Your task to perform on an android device: Open calendar and show me the first week of next month Image 0: 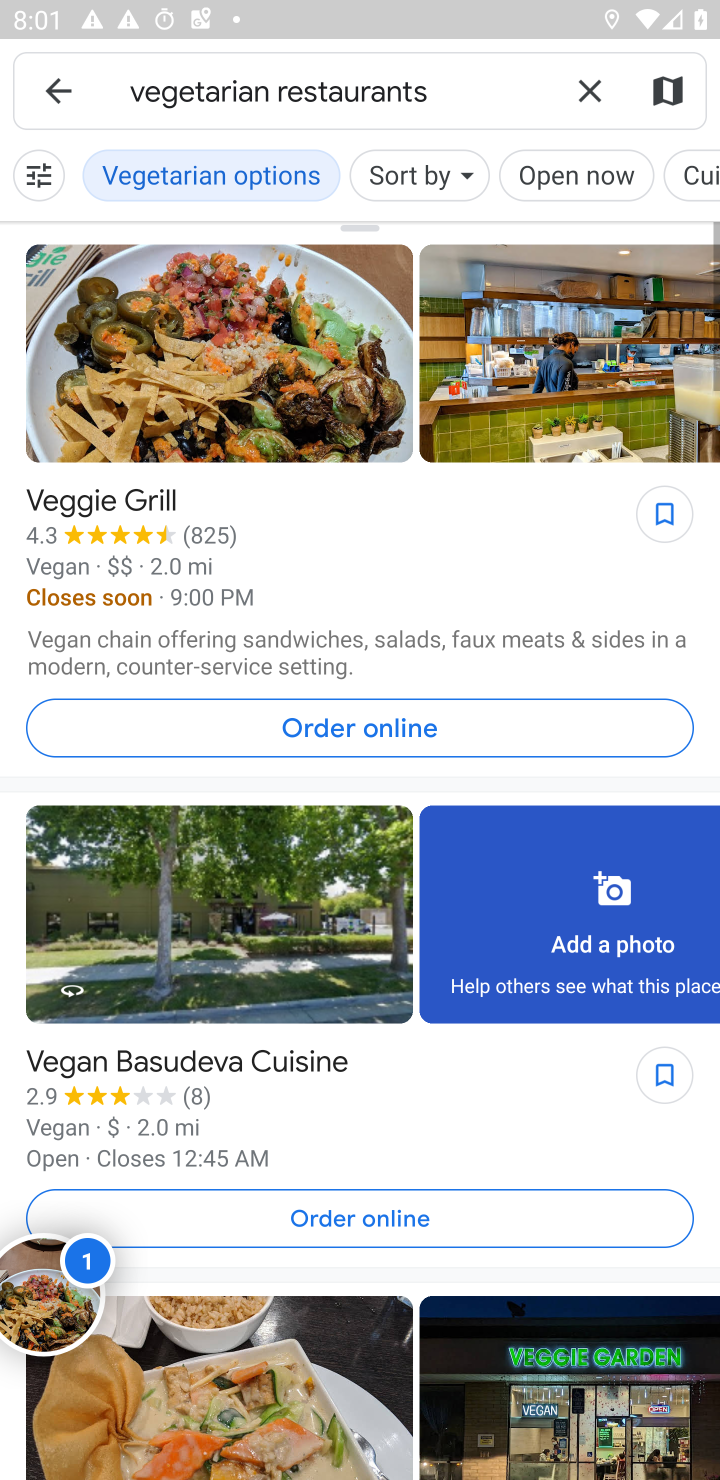
Step 0: press home button
Your task to perform on an android device: Open calendar and show me the first week of next month Image 1: 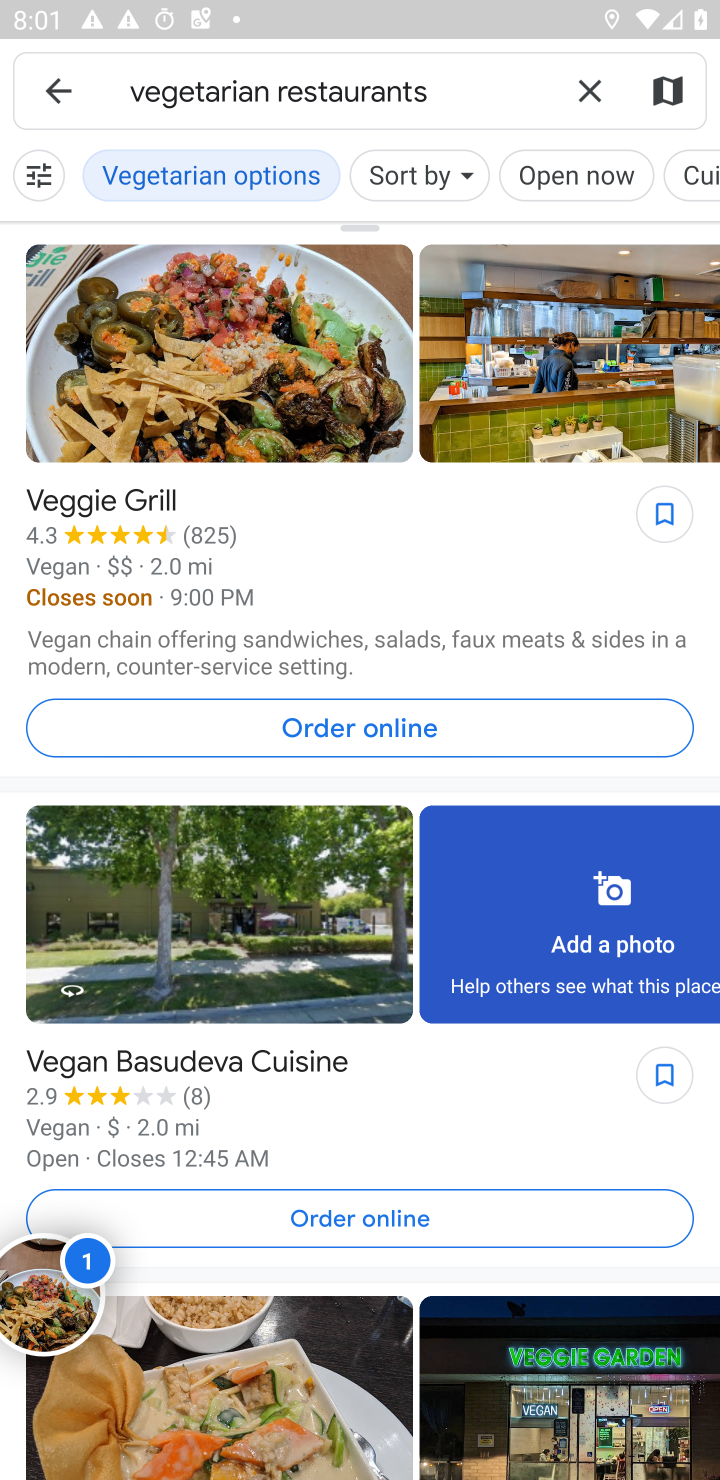
Step 1: click (365, 251)
Your task to perform on an android device: Open calendar and show me the first week of next month Image 2: 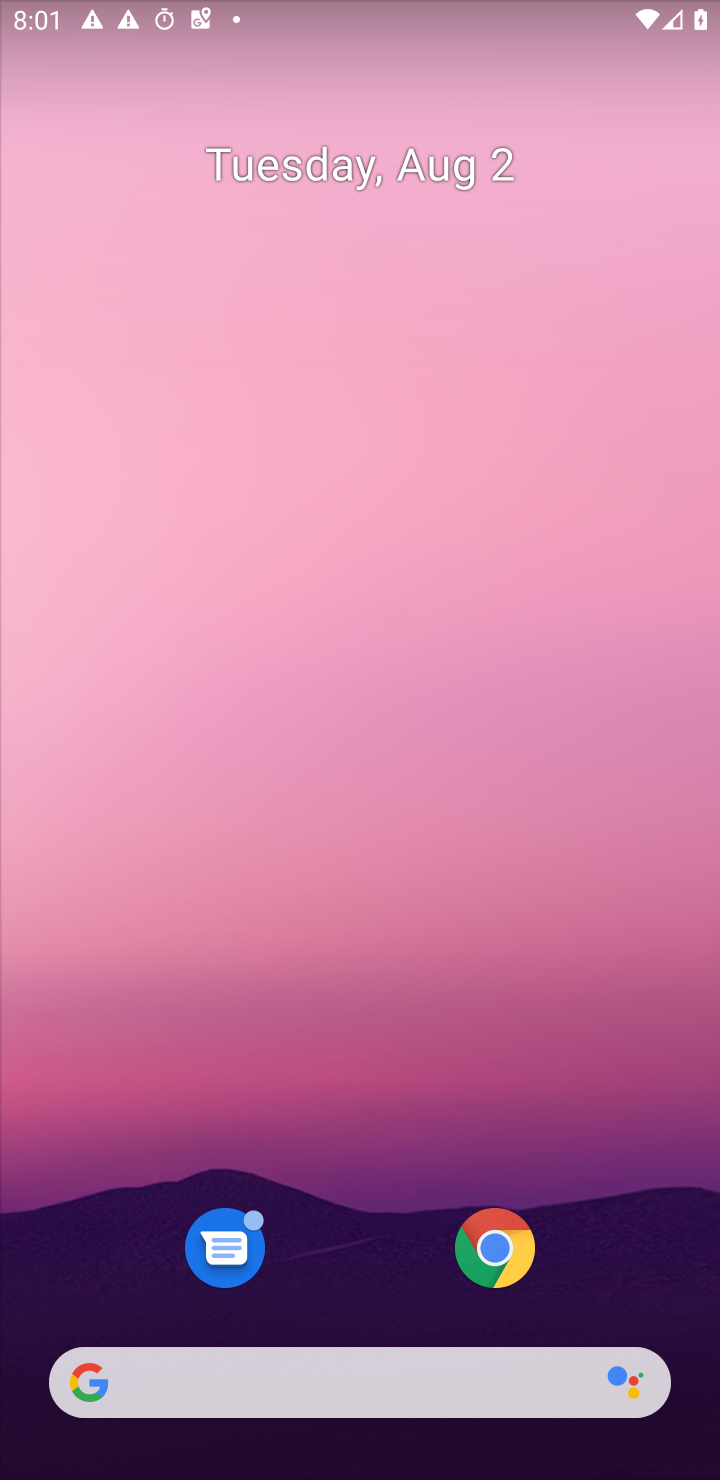
Step 2: drag from (353, 1284) to (477, 378)
Your task to perform on an android device: Open calendar and show me the first week of next month Image 3: 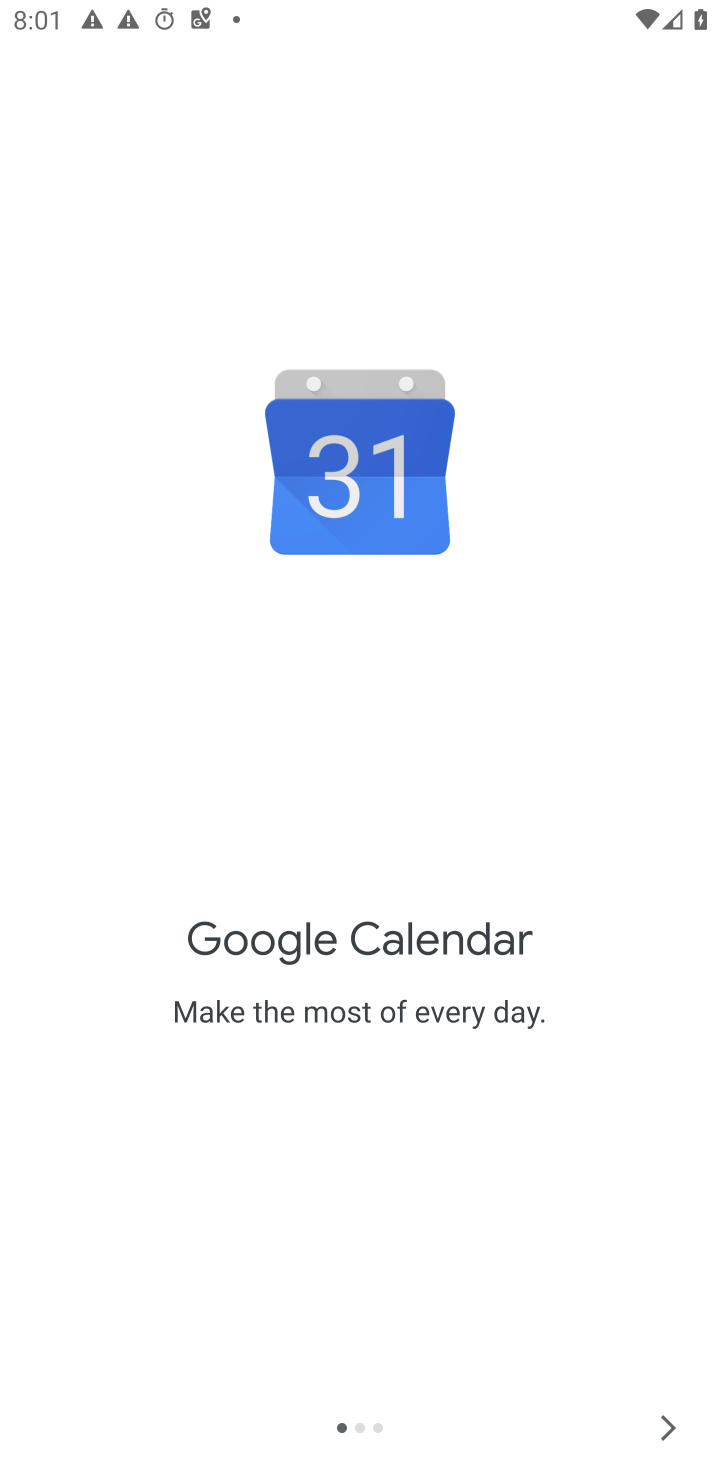
Step 3: press home button
Your task to perform on an android device: Open calendar and show me the first week of next month Image 4: 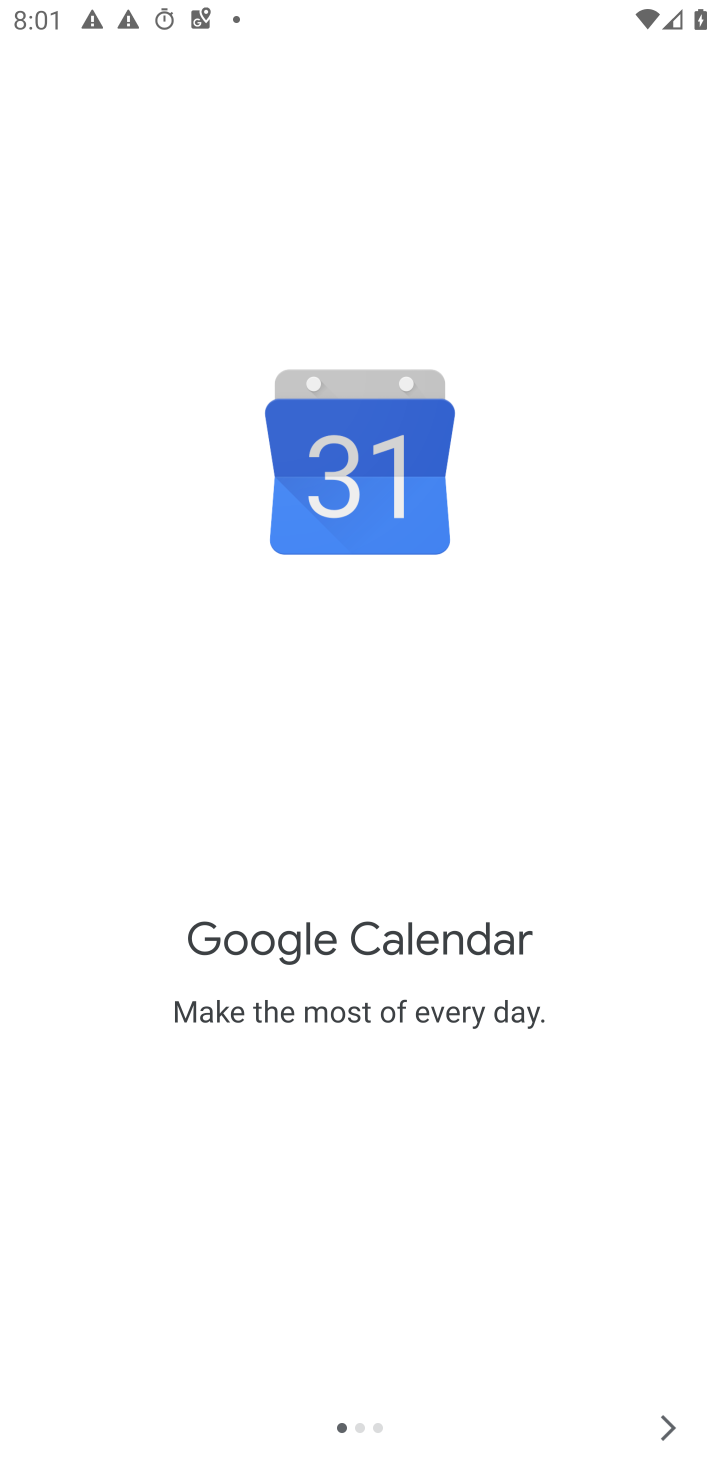
Step 4: drag from (426, 1379) to (523, 349)
Your task to perform on an android device: Open calendar and show me the first week of next month Image 5: 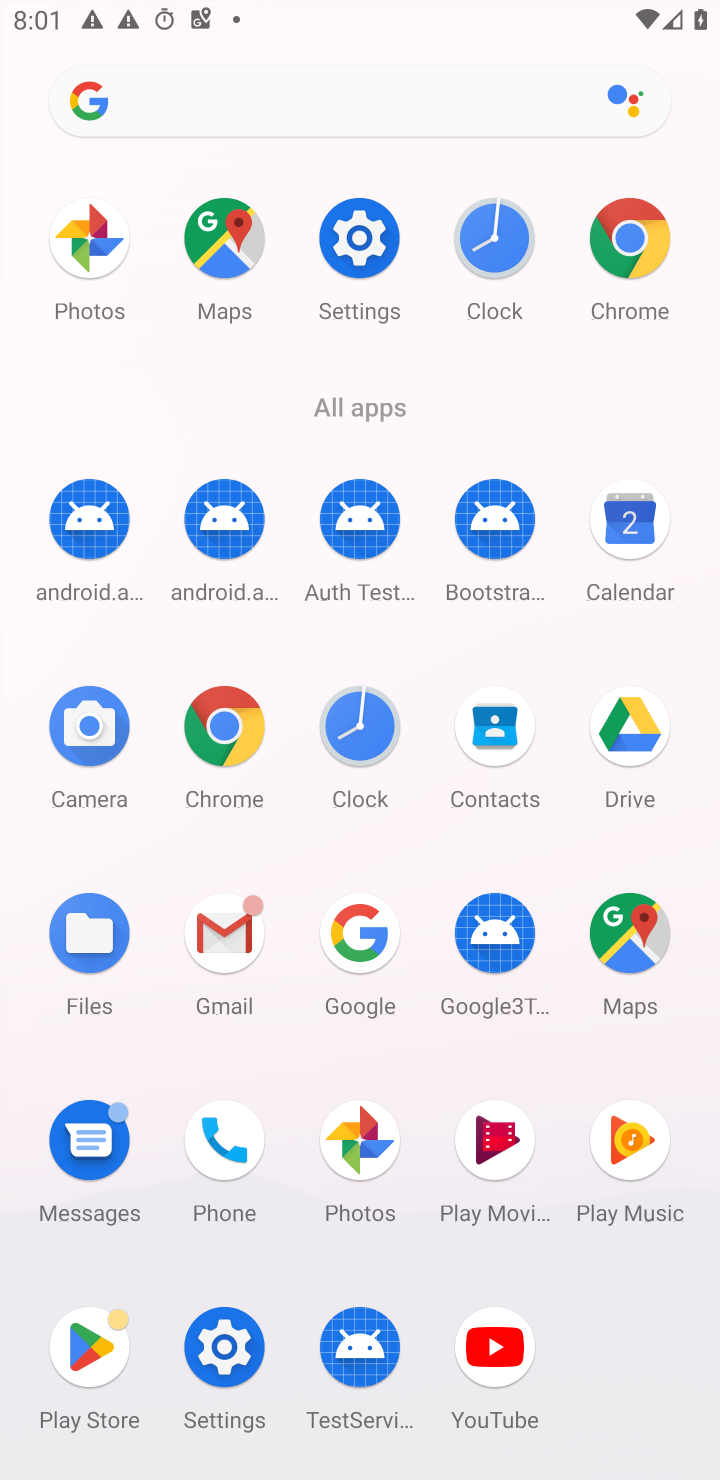
Step 5: click (633, 515)
Your task to perform on an android device: Open calendar and show me the first week of next month Image 6: 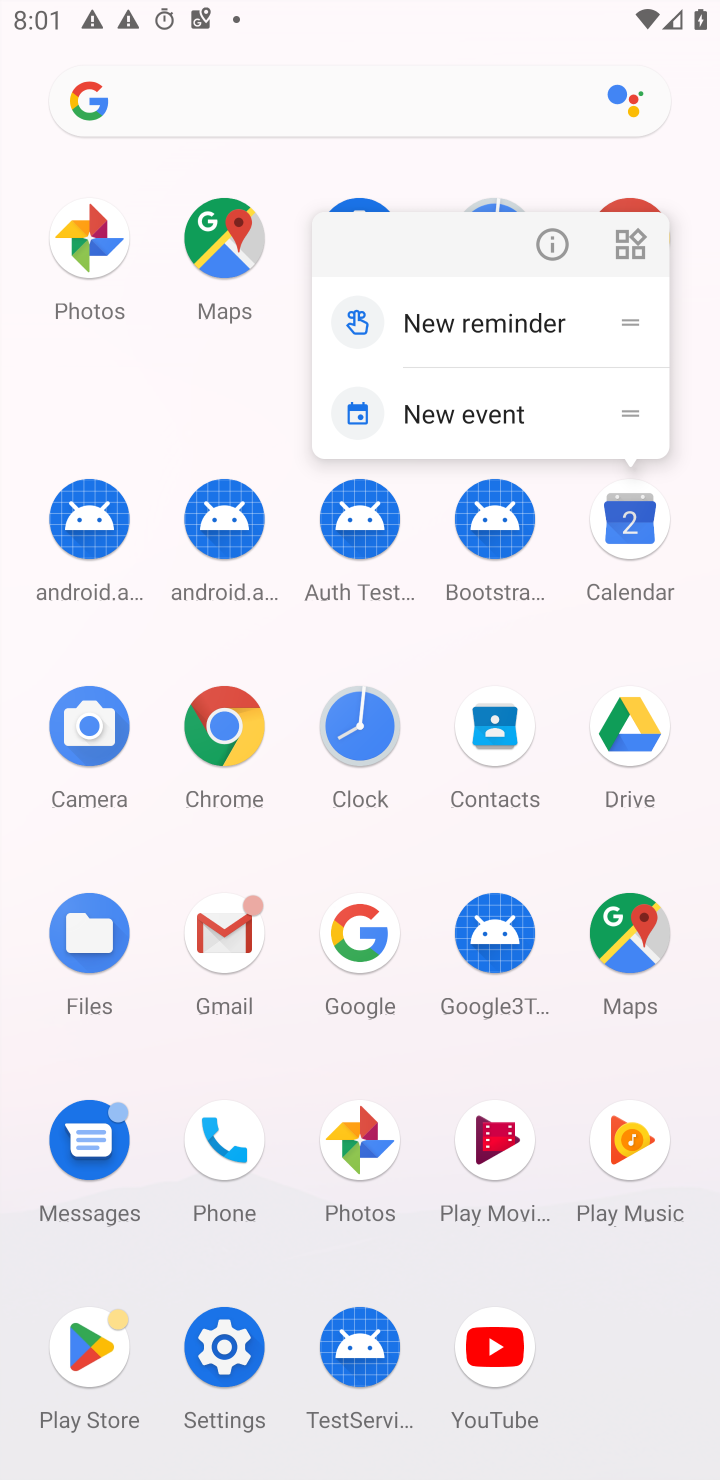
Step 6: click (553, 239)
Your task to perform on an android device: Open calendar and show me the first week of next month Image 7: 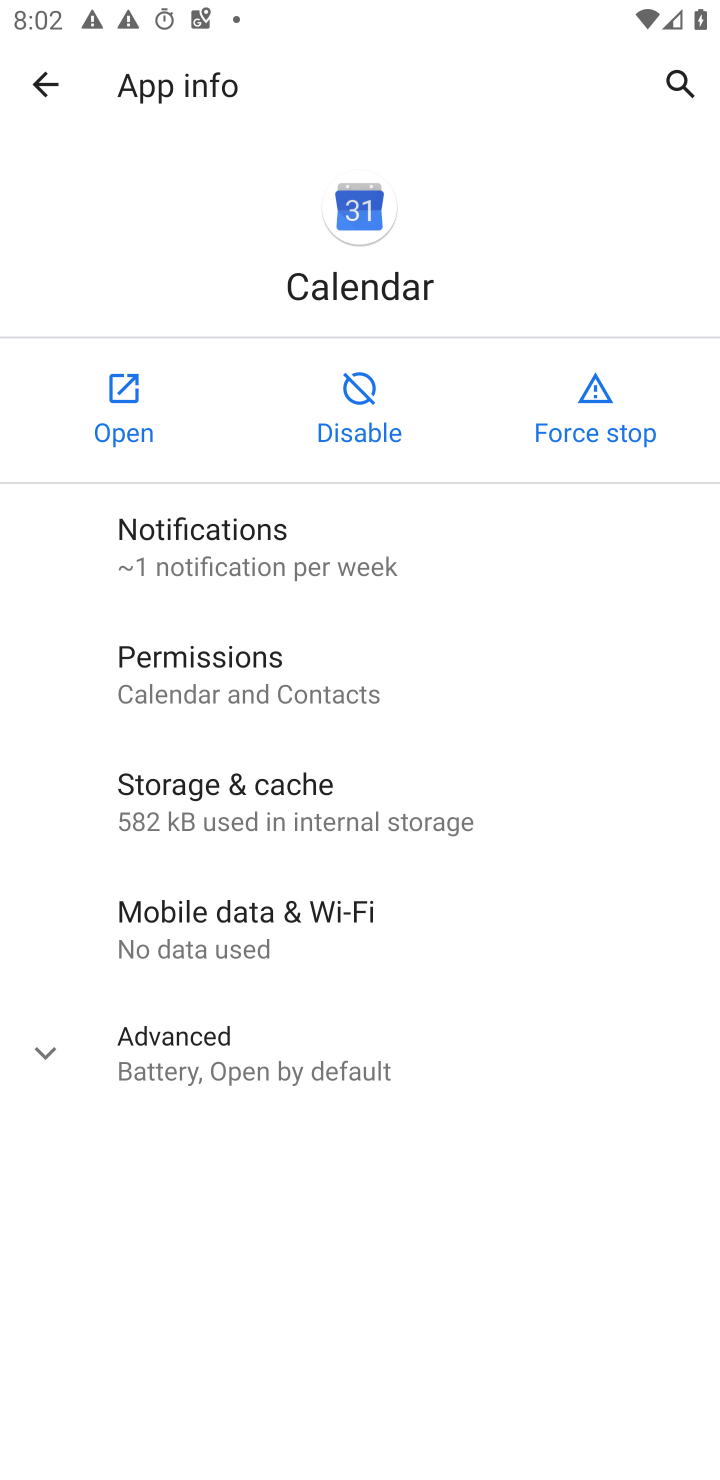
Step 7: click (117, 386)
Your task to perform on an android device: Open calendar and show me the first week of next month Image 8: 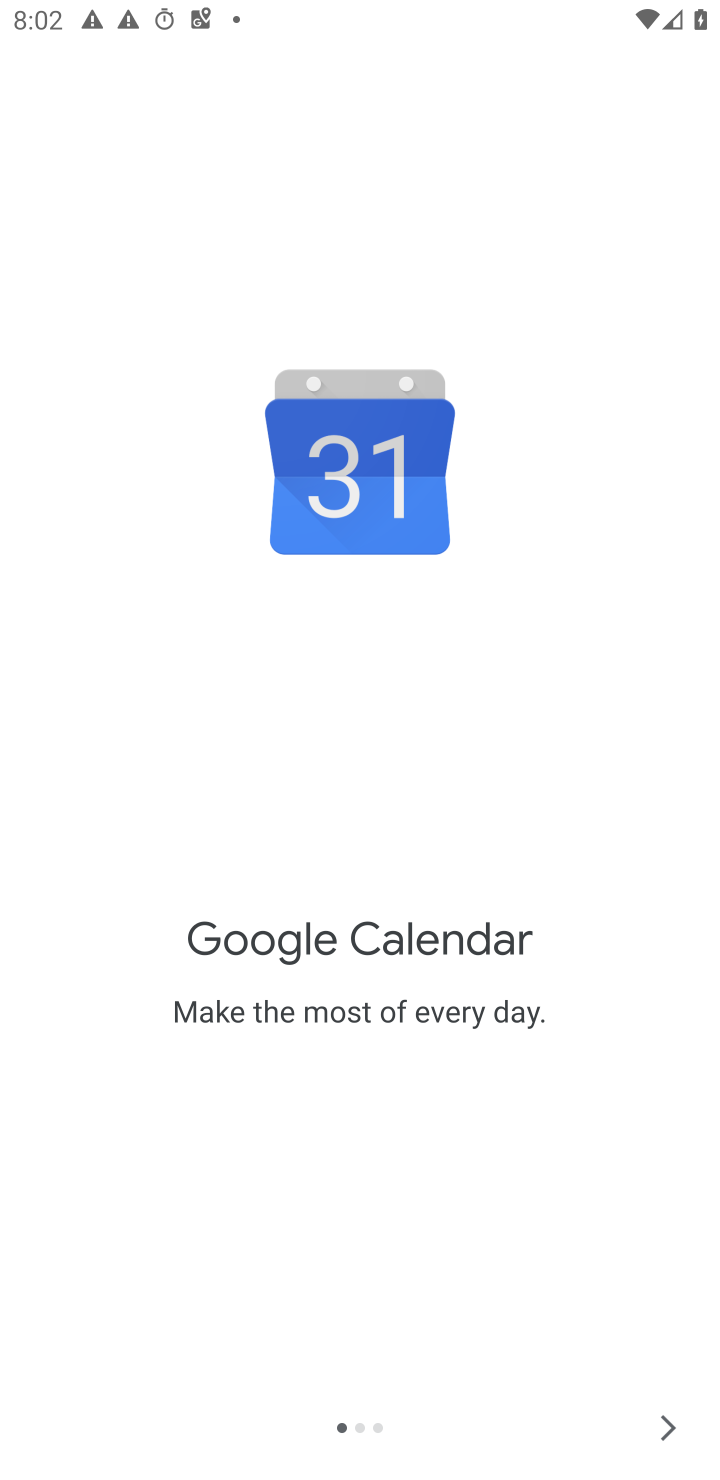
Step 8: drag from (503, 1015) to (508, 546)
Your task to perform on an android device: Open calendar and show me the first week of next month Image 9: 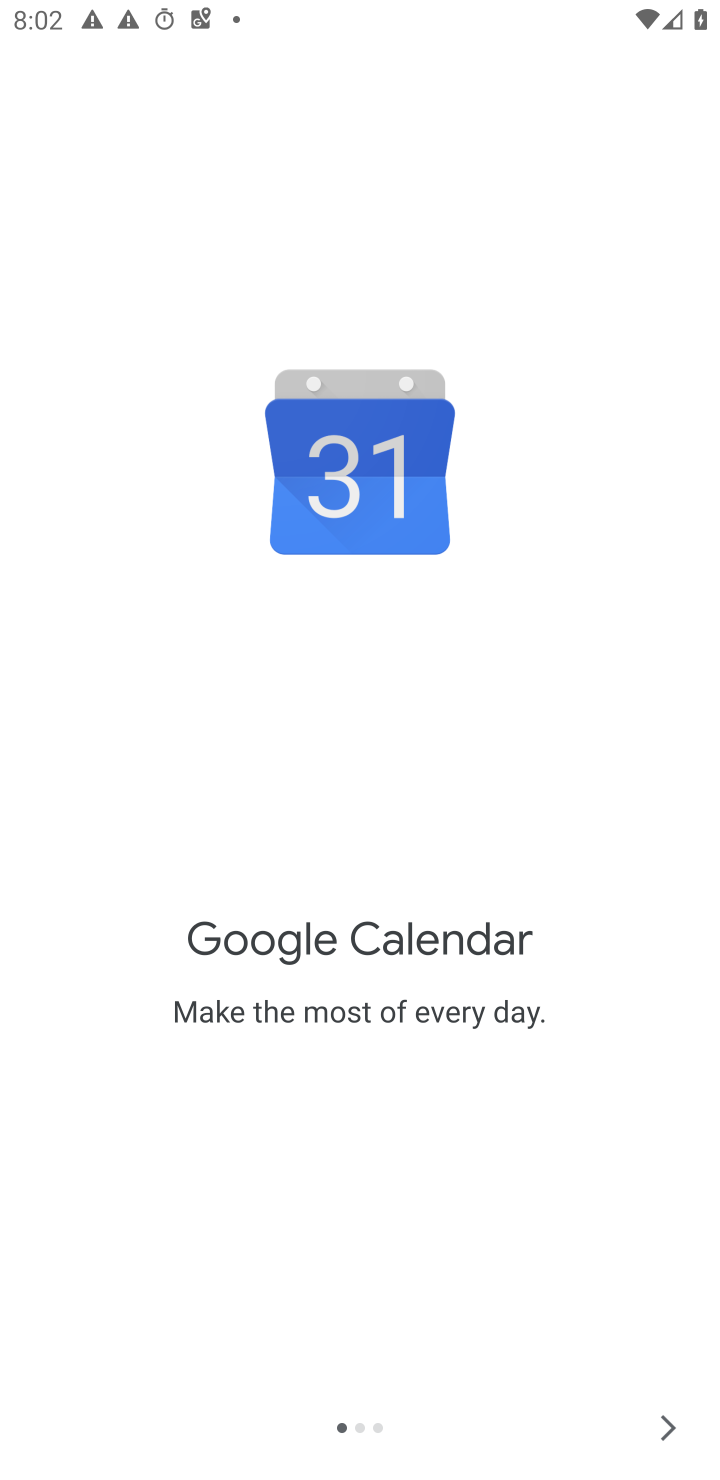
Step 9: click (639, 1418)
Your task to perform on an android device: Open calendar and show me the first week of next month Image 10: 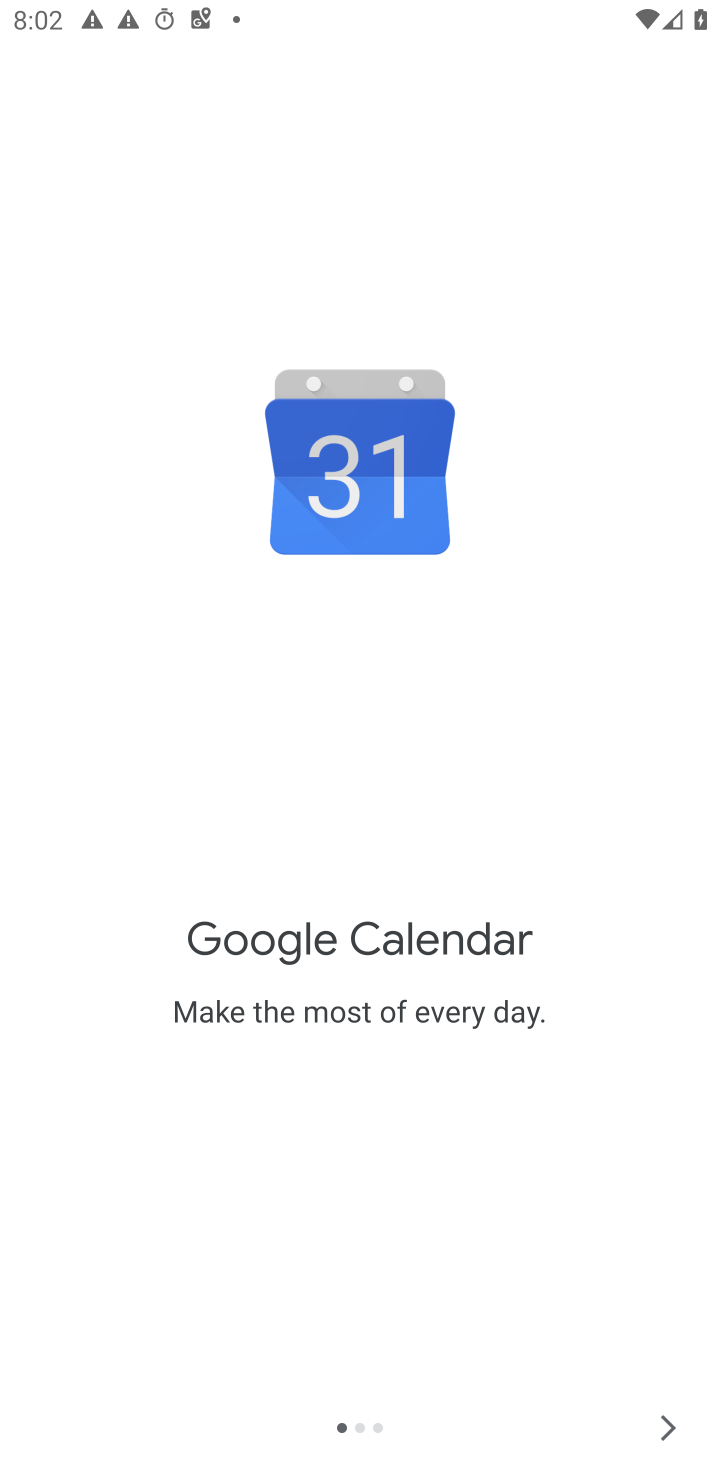
Step 10: click (650, 1418)
Your task to perform on an android device: Open calendar and show me the first week of next month Image 11: 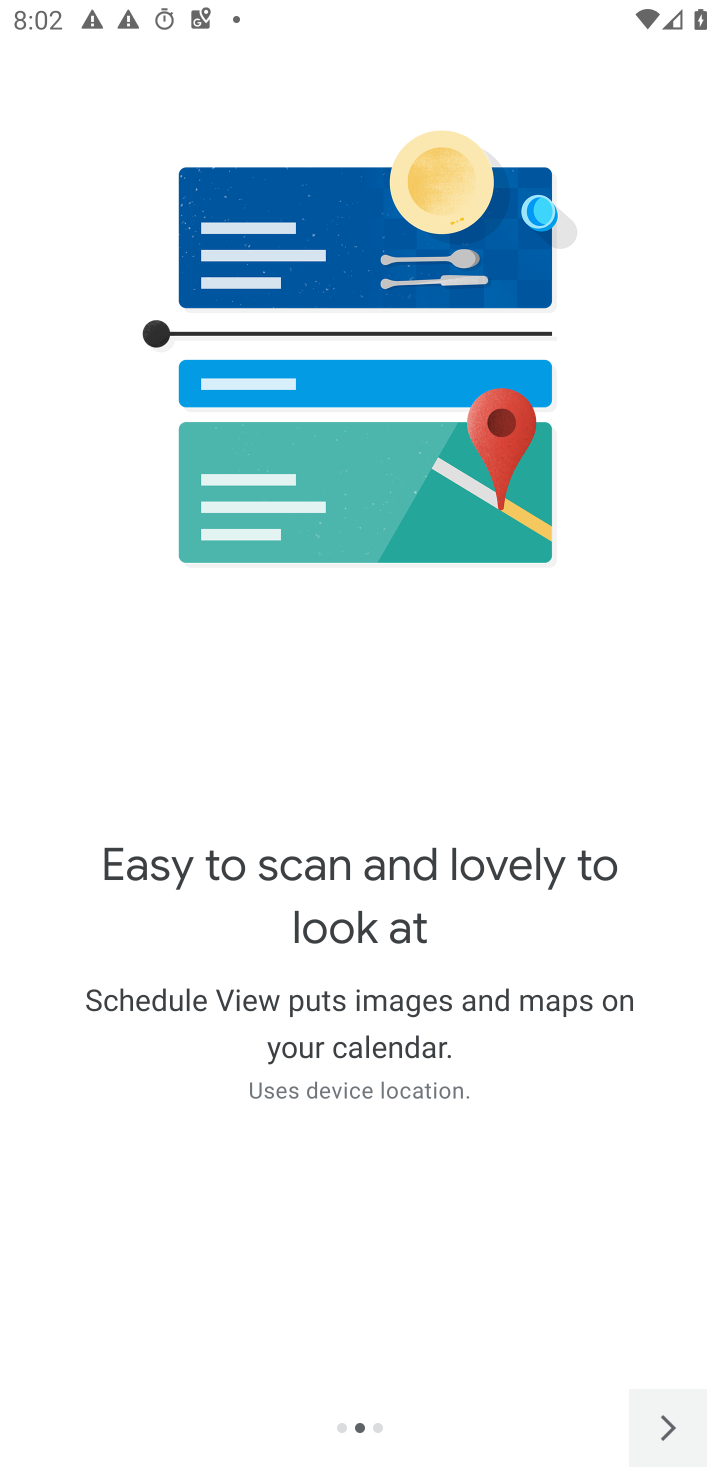
Step 11: click (652, 1420)
Your task to perform on an android device: Open calendar and show me the first week of next month Image 12: 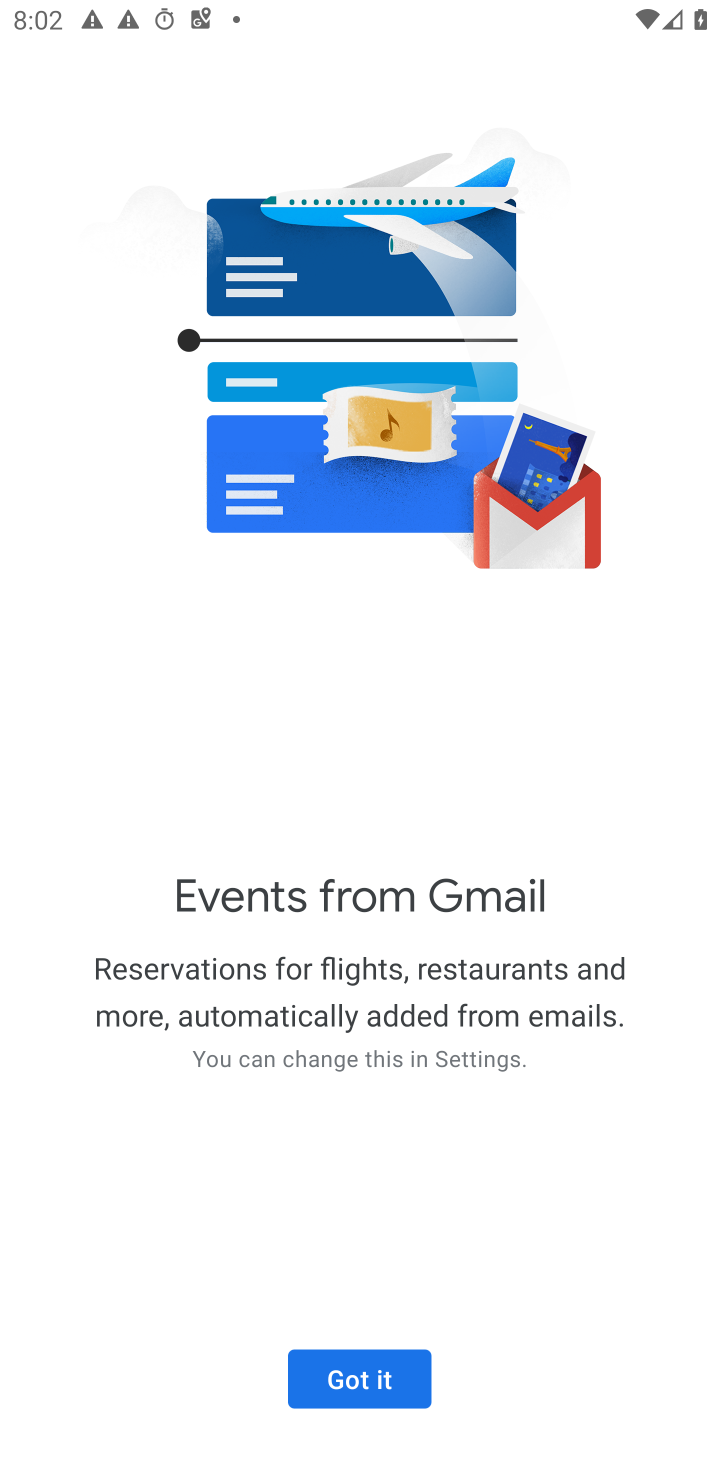
Step 12: click (337, 1389)
Your task to perform on an android device: Open calendar and show me the first week of next month Image 13: 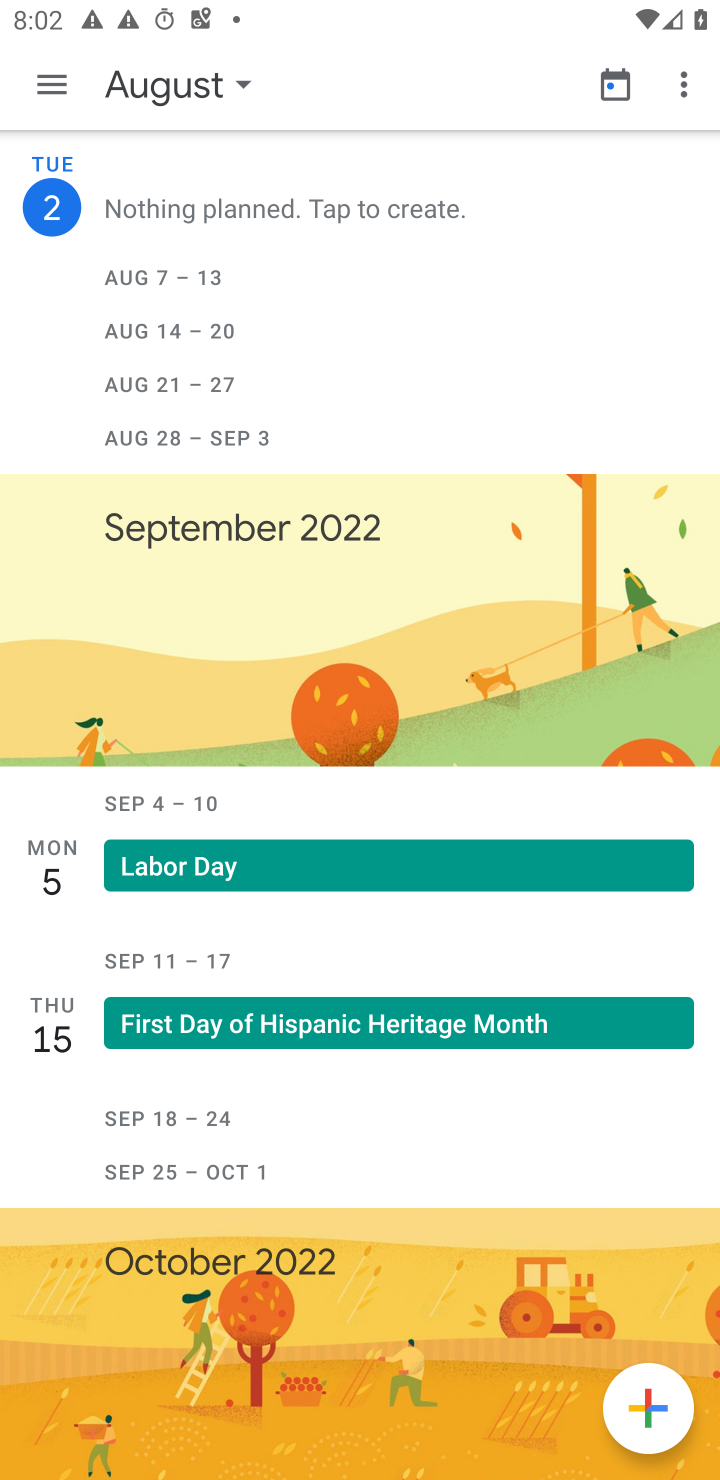
Step 13: drag from (390, 1020) to (494, 706)
Your task to perform on an android device: Open calendar and show me the first week of next month Image 14: 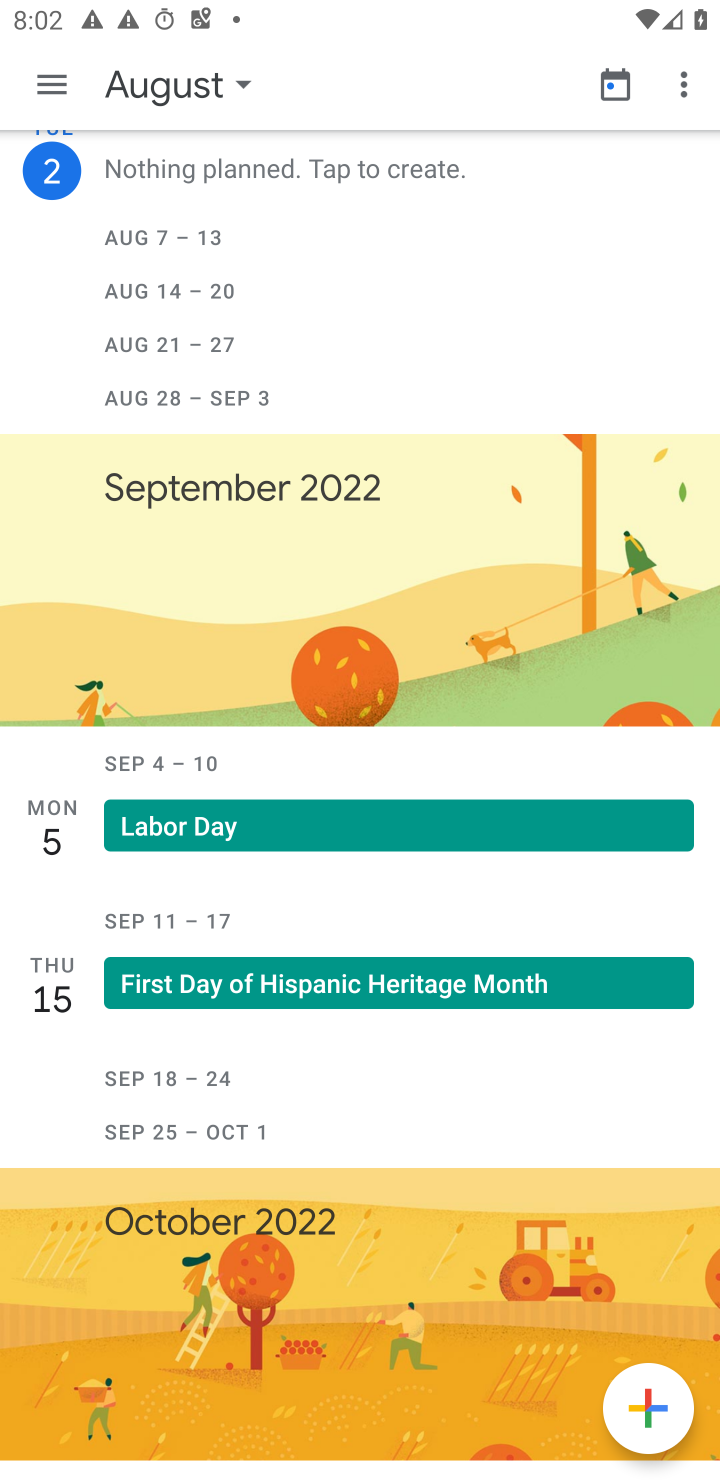
Step 14: click (186, 86)
Your task to perform on an android device: Open calendar and show me the first week of next month Image 15: 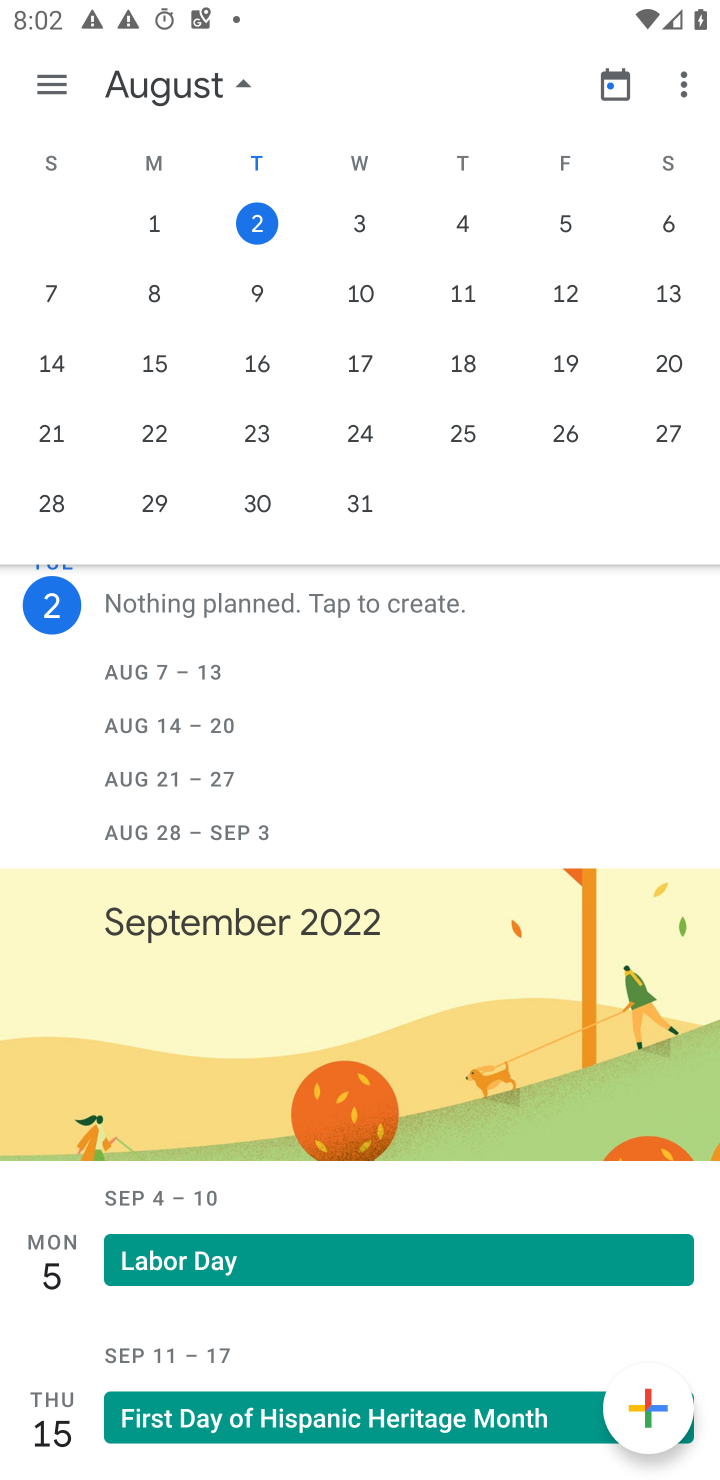
Step 15: drag from (492, 273) to (9, 286)
Your task to perform on an android device: Open calendar and show me the first week of next month Image 16: 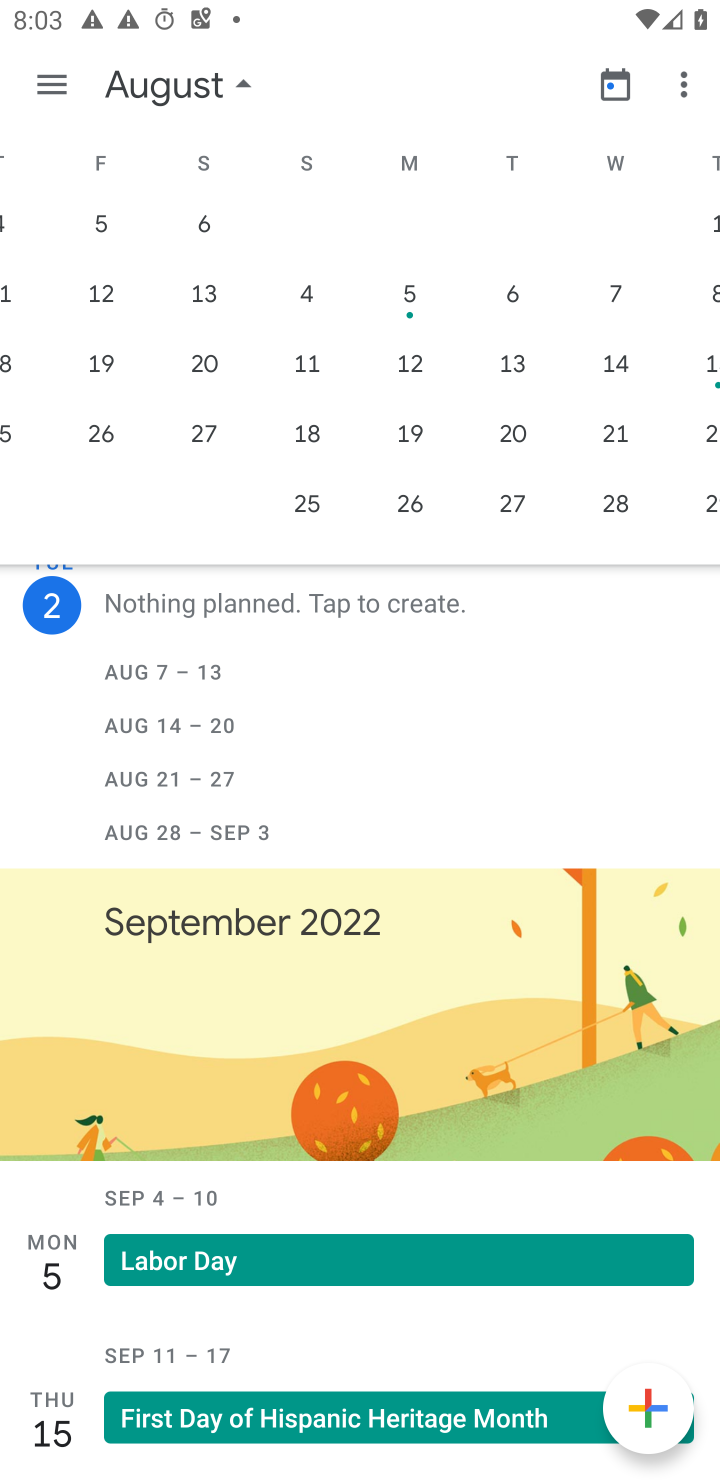
Step 16: drag from (182, 319) to (0, 357)
Your task to perform on an android device: Open calendar and show me the first week of next month Image 17: 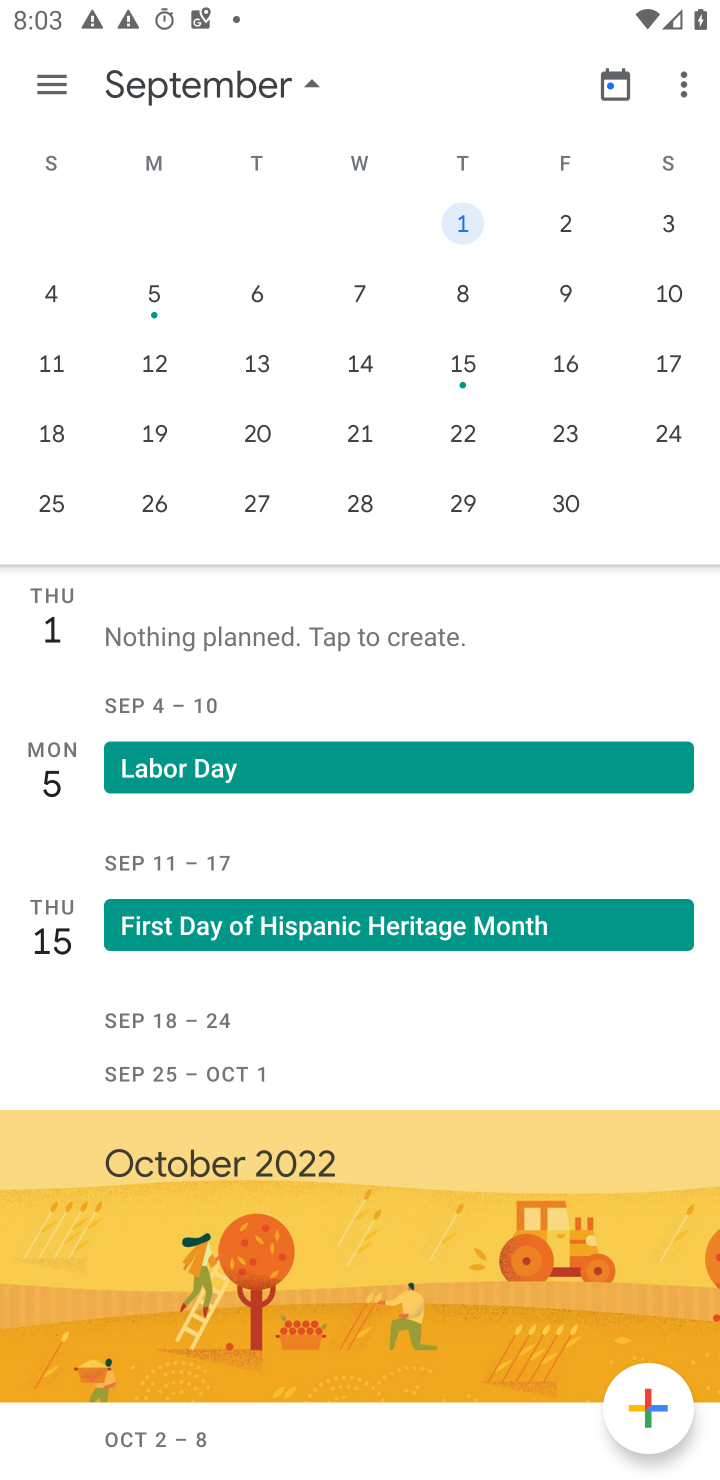
Step 17: click (568, 224)
Your task to perform on an android device: Open calendar and show me the first week of next month Image 18: 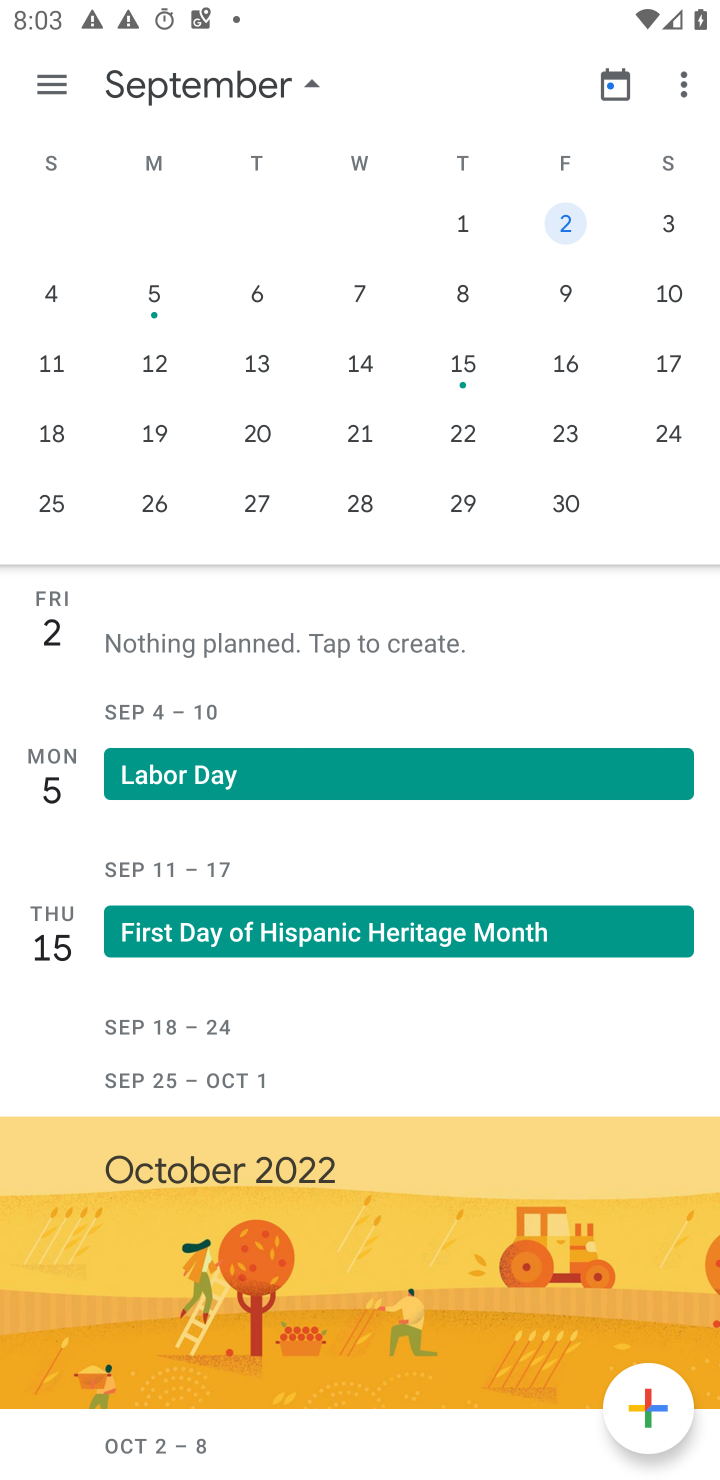
Step 18: task complete